Your task to perform on an android device: Search for sushi restaurants on Maps Image 0: 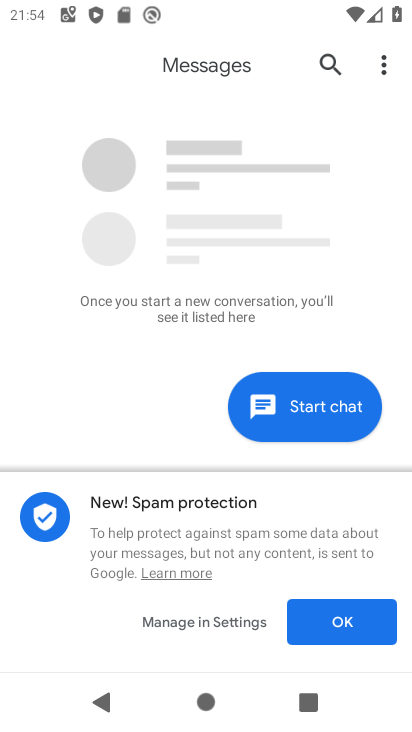
Step 0: press home button
Your task to perform on an android device: Search for sushi restaurants on Maps Image 1: 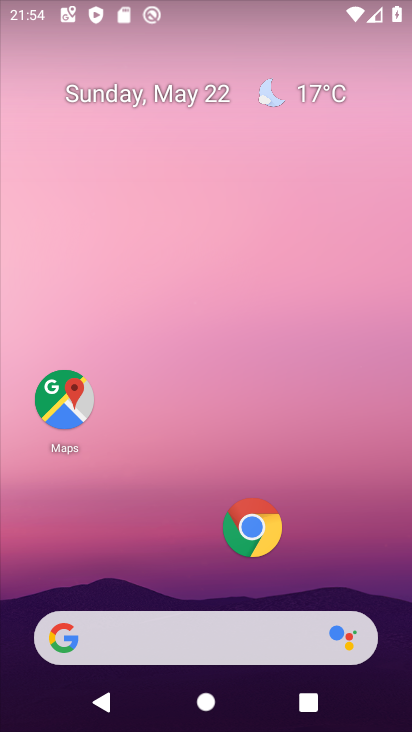
Step 1: click (60, 400)
Your task to perform on an android device: Search for sushi restaurants on Maps Image 2: 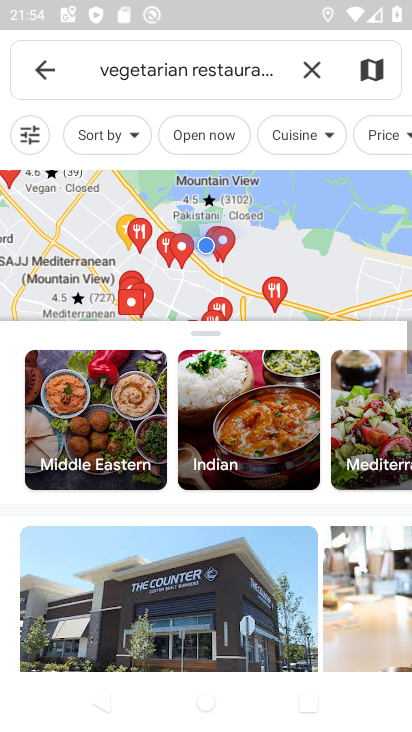
Step 2: click (306, 68)
Your task to perform on an android device: Search for sushi restaurants on Maps Image 3: 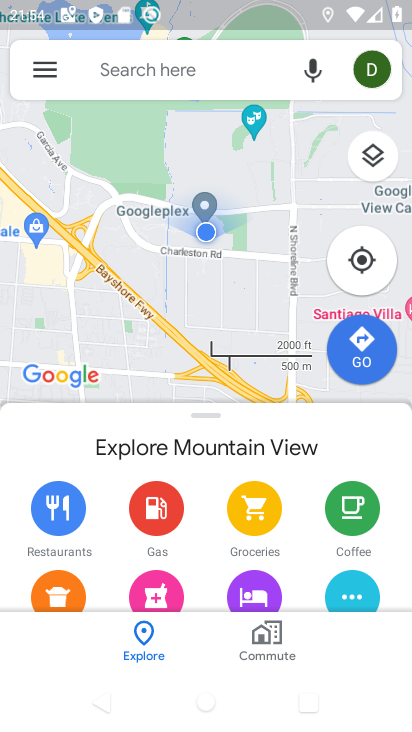
Step 3: click (170, 70)
Your task to perform on an android device: Search for sushi restaurants on Maps Image 4: 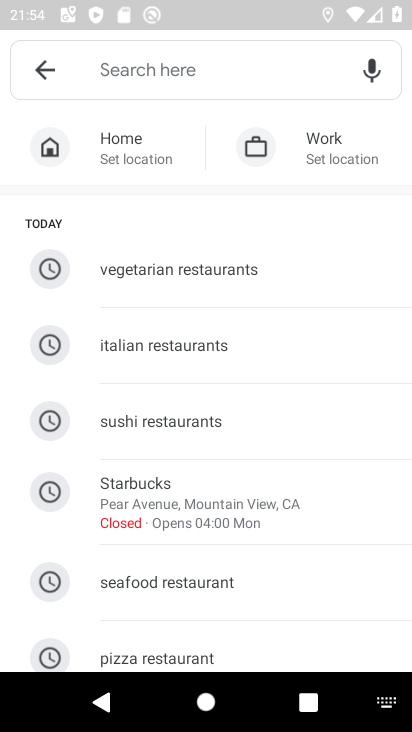
Step 4: click (185, 420)
Your task to perform on an android device: Search for sushi restaurants on Maps Image 5: 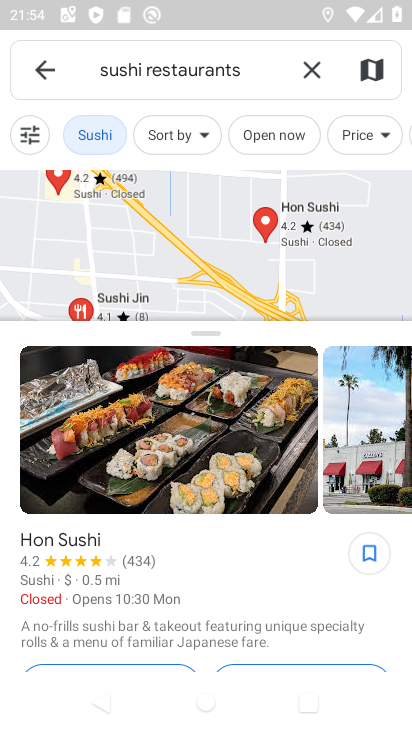
Step 5: task complete